Your task to perform on an android device: manage bookmarks in the chrome app Image 0: 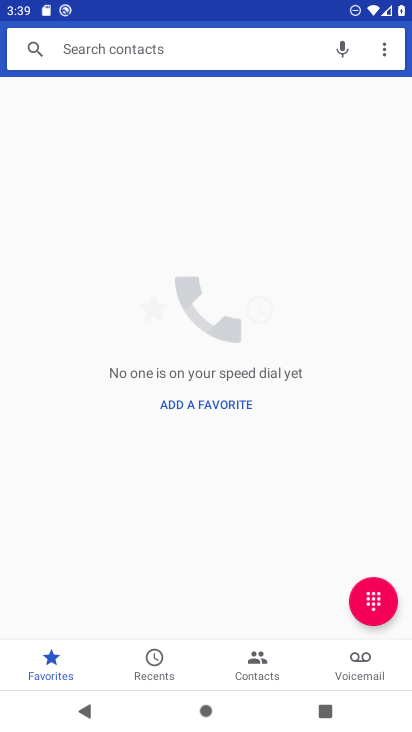
Step 0: click (150, 580)
Your task to perform on an android device: manage bookmarks in the chrome app Image 1: 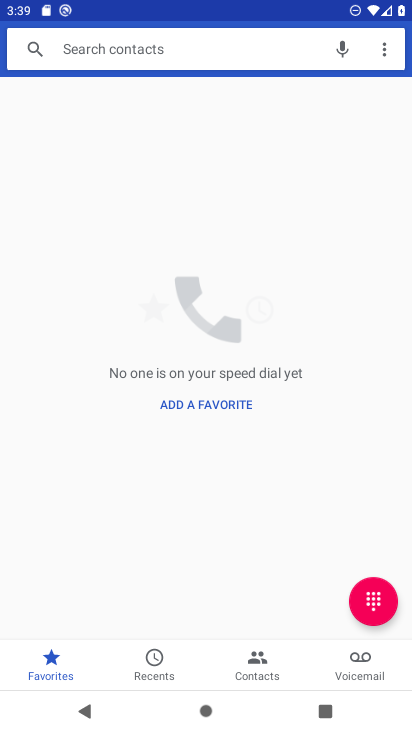
Step 1: press home button
Your task to perform on an android device: manage bookmarks in the chrome app Image 2: 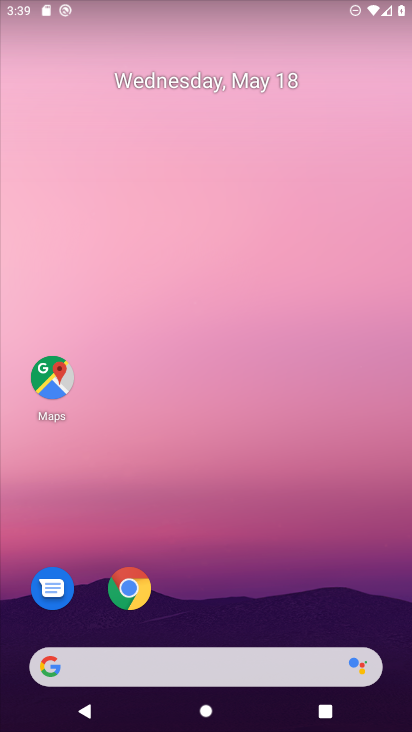
Step 2: click (132, 587)
Your task to perform on an android device: manage bookmarks in the chrome app Image 3: 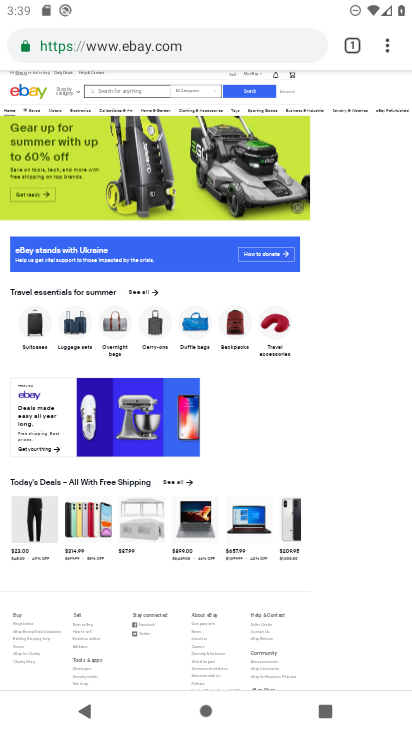
Step 3: click (392, 49)
Your task to perform on an android device: manage bookmarks in the chrome app Image 4: 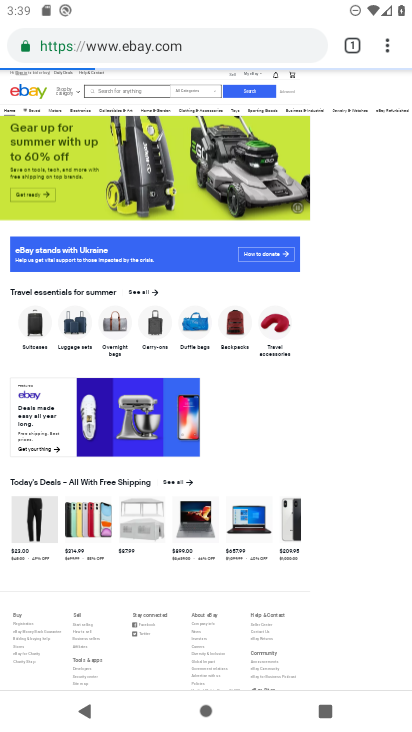
Step 4: click (387, 65)
Your task to perform on an android device: manage bookmarks in the chrome app Image 5: 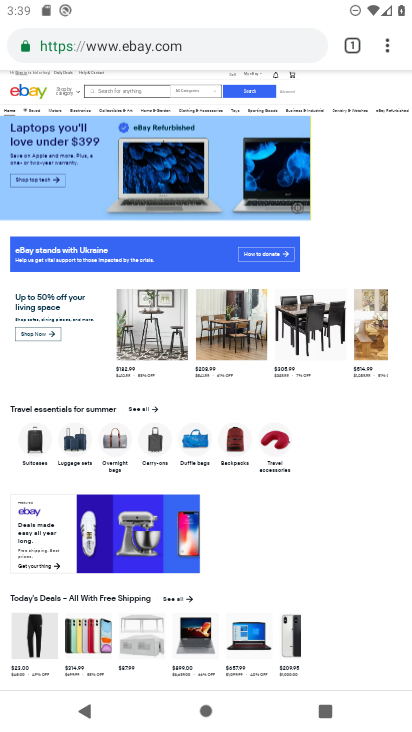
Step 5: click (380, 43)
Your task to perform on an android device: manage bookmarks in the chrome app Image 6: 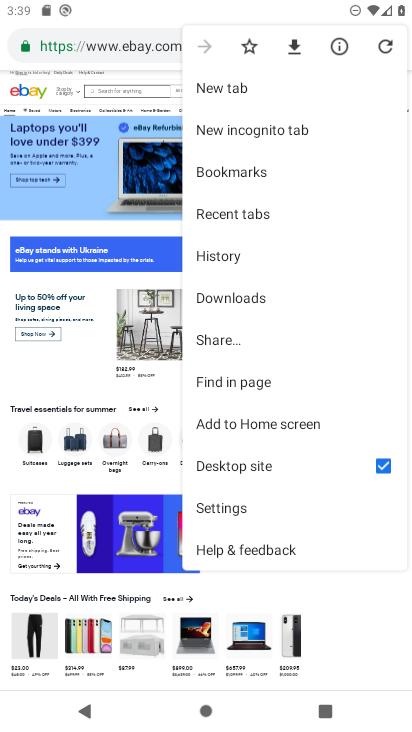
Step 6: click (236, 512)
Your task to perform on an android device: manage bookmarks in the chrome app Image 7: 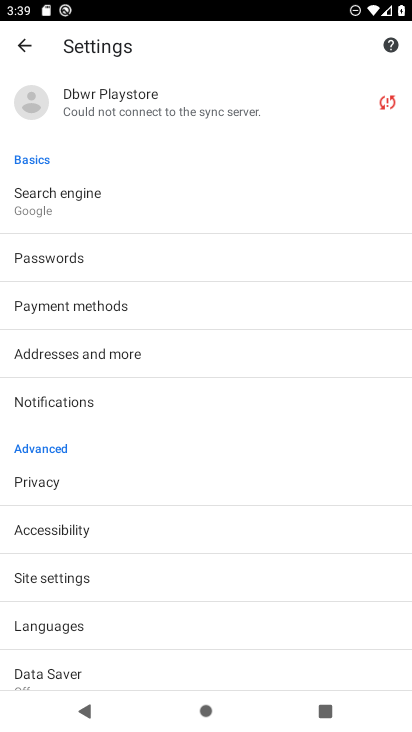
Step 7: task complete